Your task to perform on an android device: set the stopwatch Image 0: 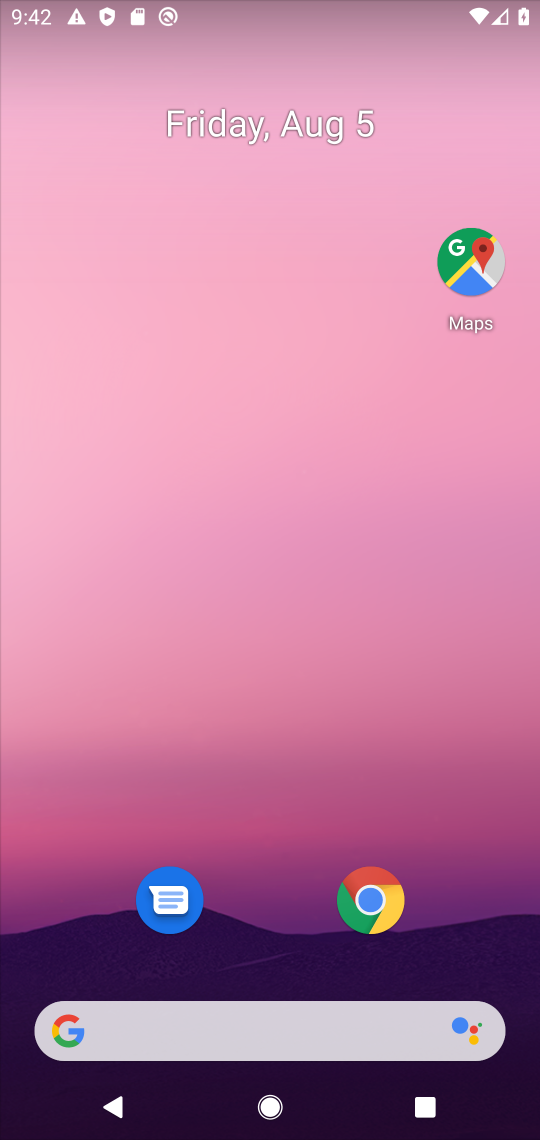
Step 0: click (308, 273)
Your task to perform on an android device: set the stopwatch Image 1: 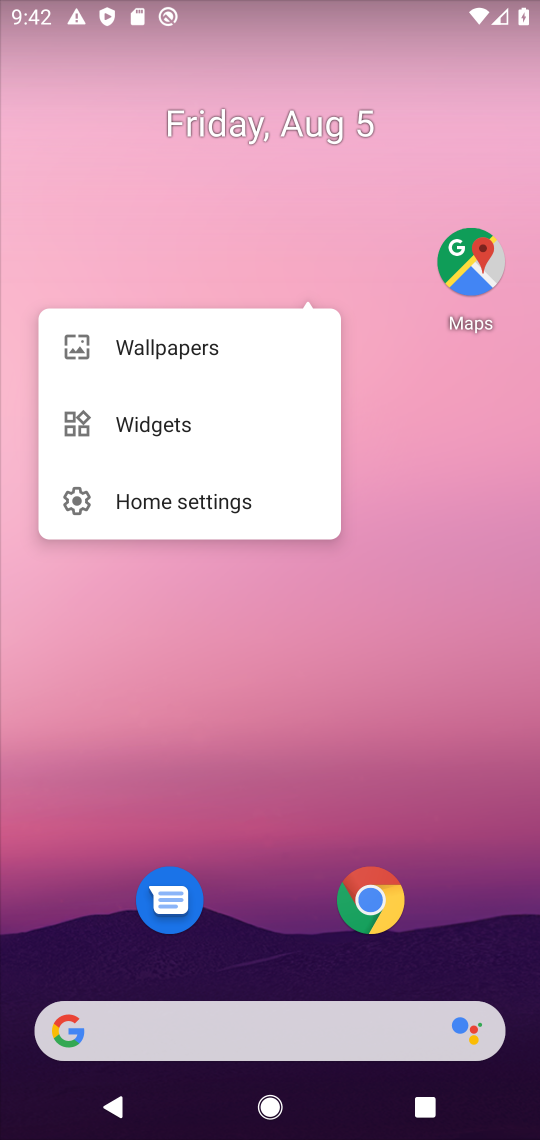
Step 1: drag from (292, 986) to (228, 151)
Your task to perform on an android device: set the stopwatch Image 2: 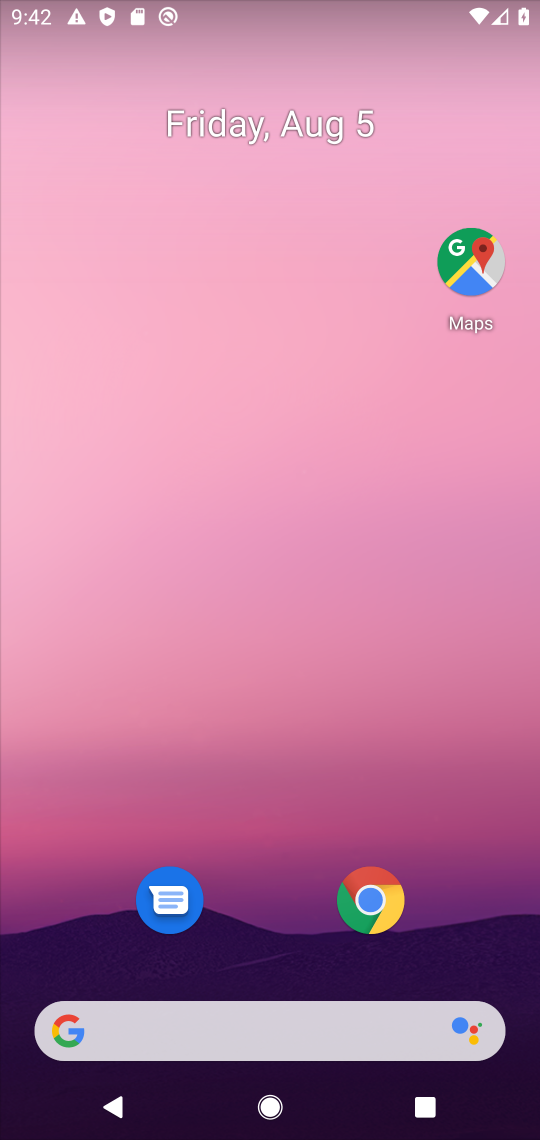
Step 2: drag from (286, 967) to (265, 89)
Your task to perform on an android device: set the stopwatch Image 3: 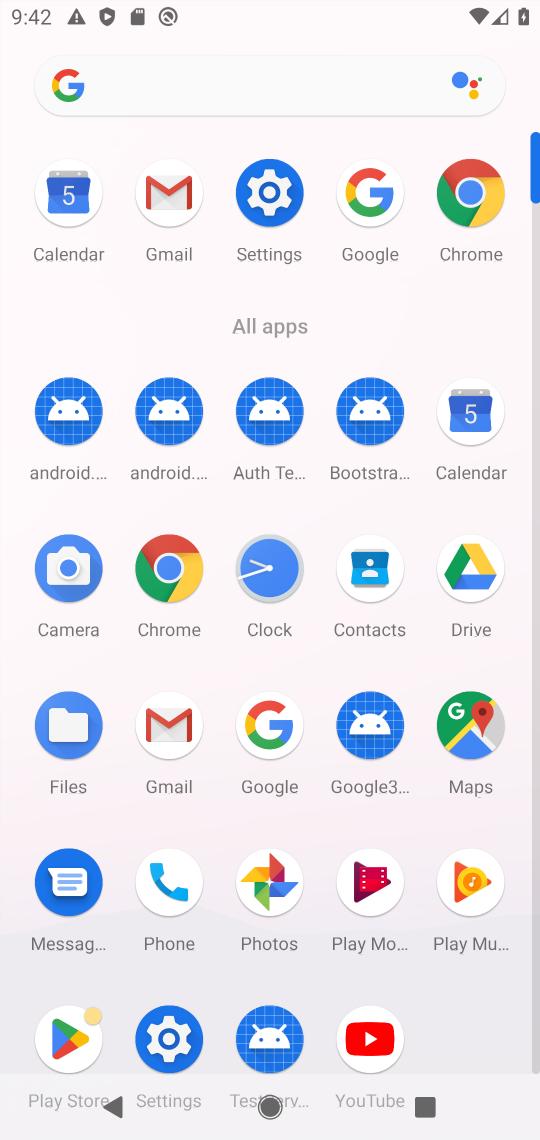
Step 3: click (283, 572)
Your task to perform on an android device: set the stopwatch Image 4: 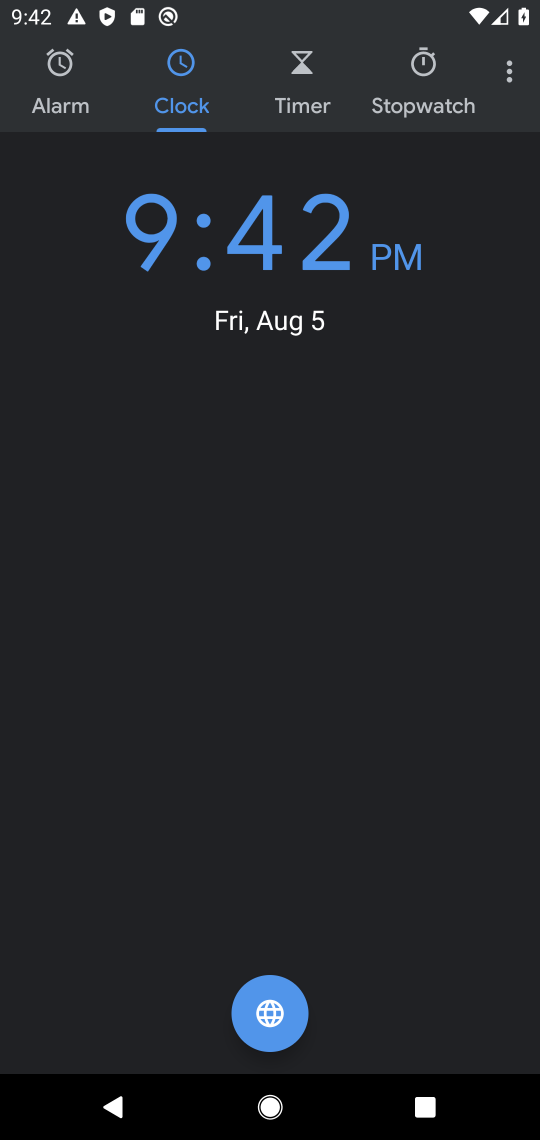
Step 4: click (417, 106)
Your task to perform on an android device: set the stopwatch Image 5: 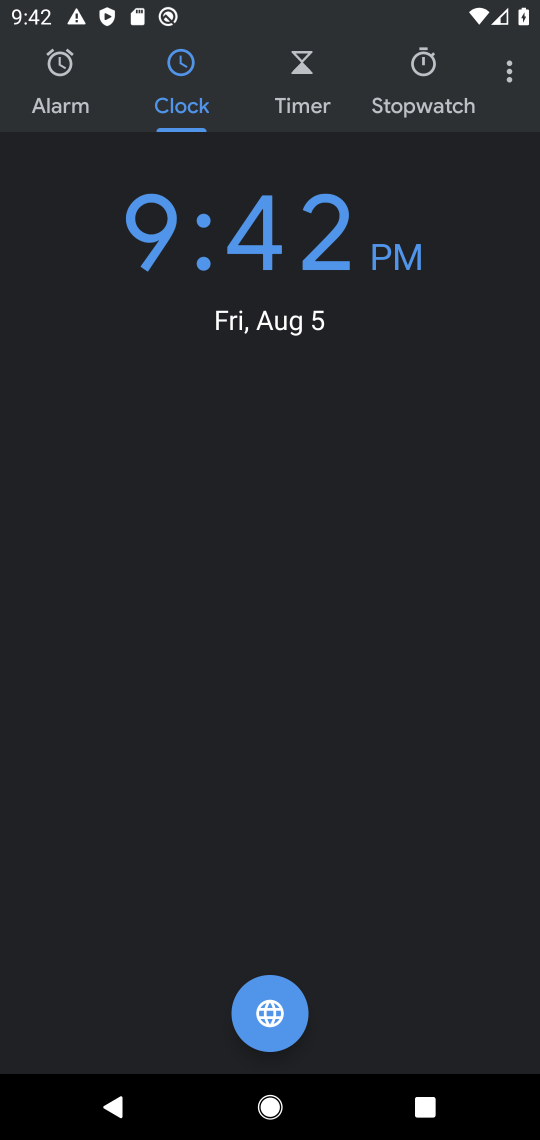
Step 5: click (417, 106)
Your task to perform on an android device: set the stopwatch Image 6: 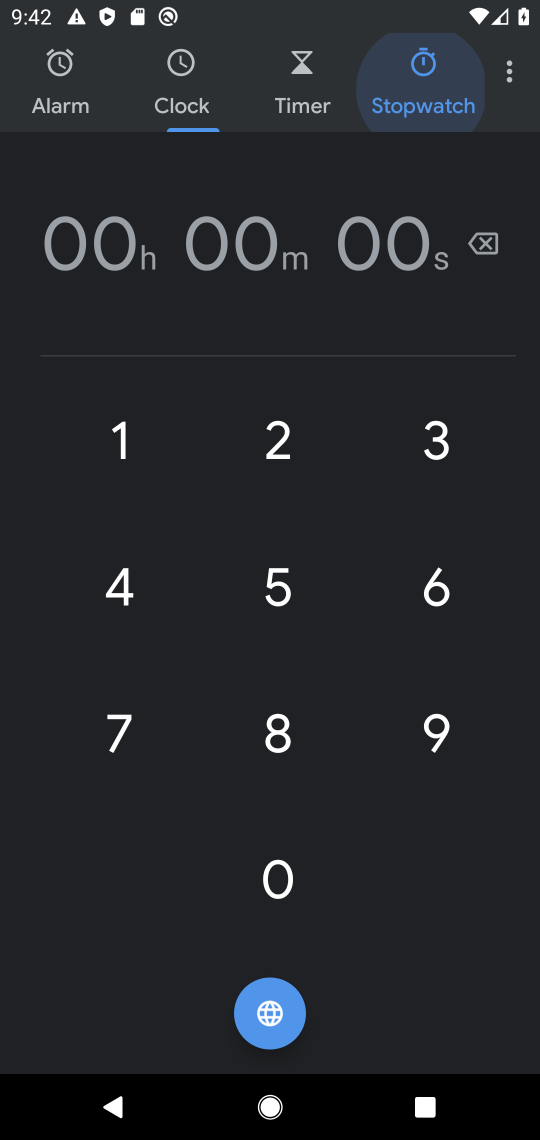
Step 6: click (417, 105)
Your task to perform on an android device: set the stopwatch Image 7: 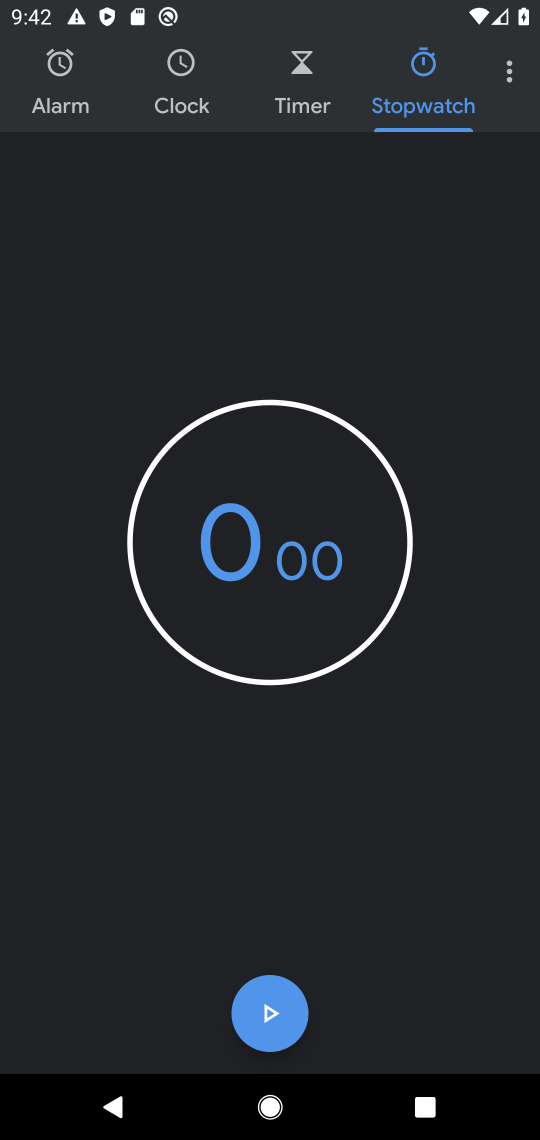
Step 7: click (275, 1002)
Your task to perform on an android device: set the stopwatch Image 8: 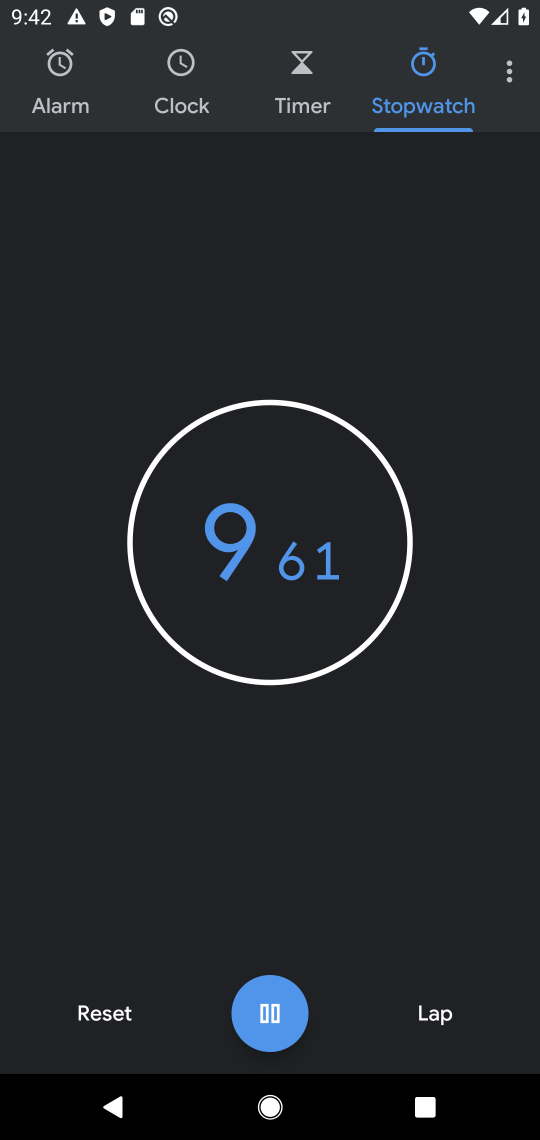
Step 8: task complete